Your task to perform on an android device: turn off sleep mode Image 0: 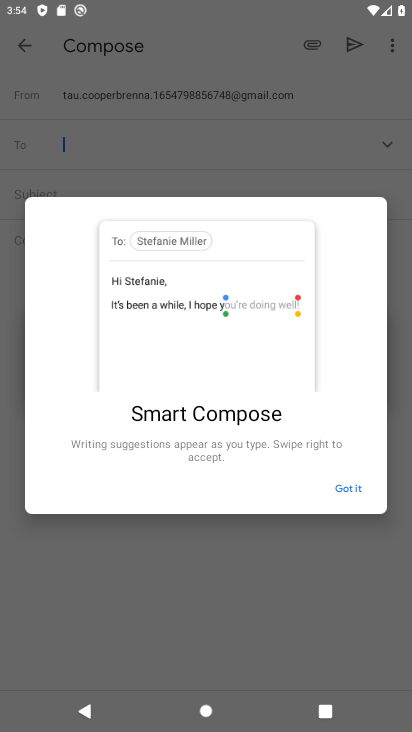
Step 0: press home button
Your task to perform on an android device: turn off sleep mode Image 1: 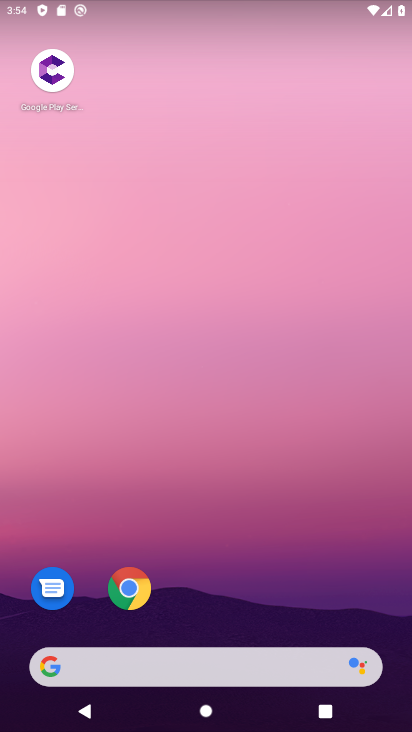
Step 1: drag from (295, 561) to (257, 3)
Your task to perform on an android device: turn off sleep mode Image 2: 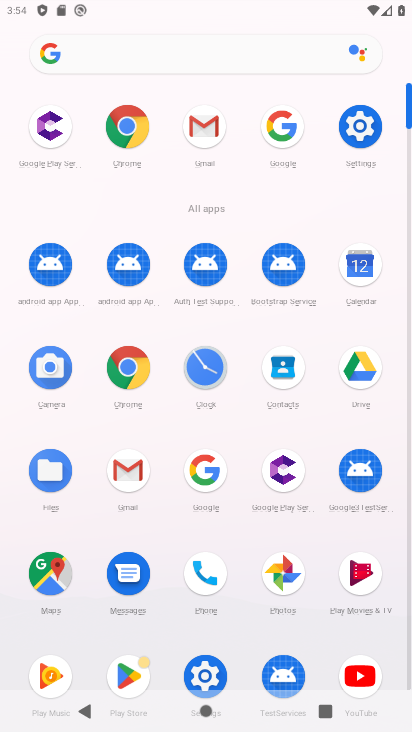
Step 2: click (341, 131)
Your task to perform on an android device: turn off sleep mode Image 3: 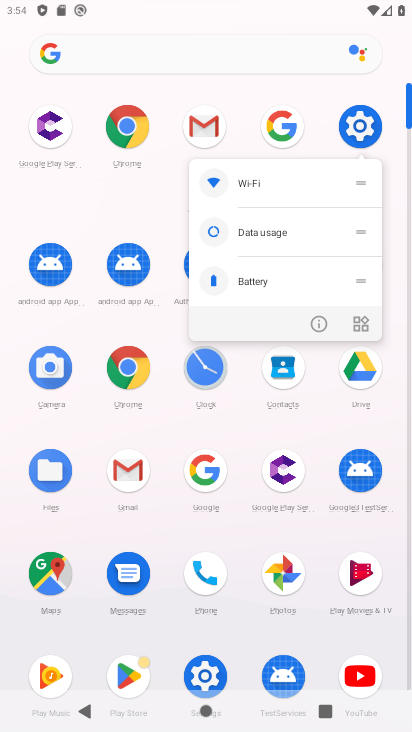
Step 3: click (341, 131)
Your task to perform on an android device: turn off sleep mode Image 4: 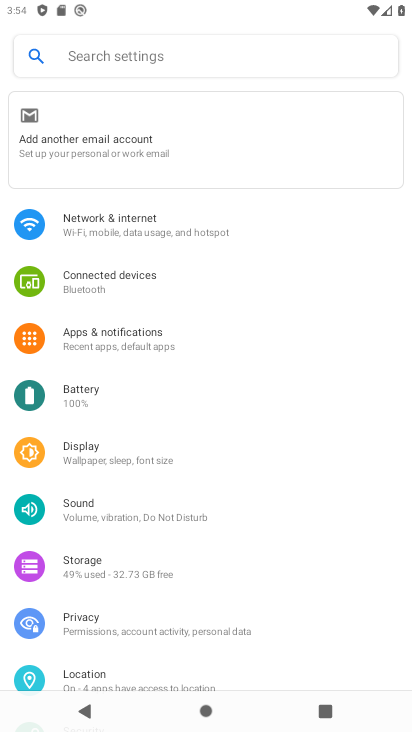
Step 4: click (128, 455)
Your task to perform on an android device: turn off sleep mode Image 5: 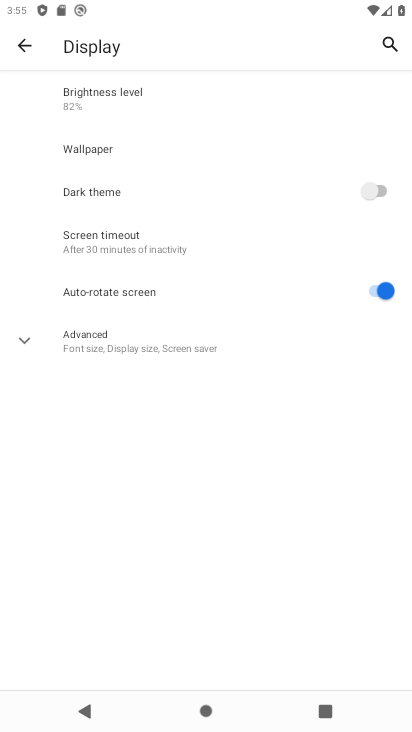
Step 5: click (123, 235)
Your task to perform on an android device: turn off sleep mode Image 6: 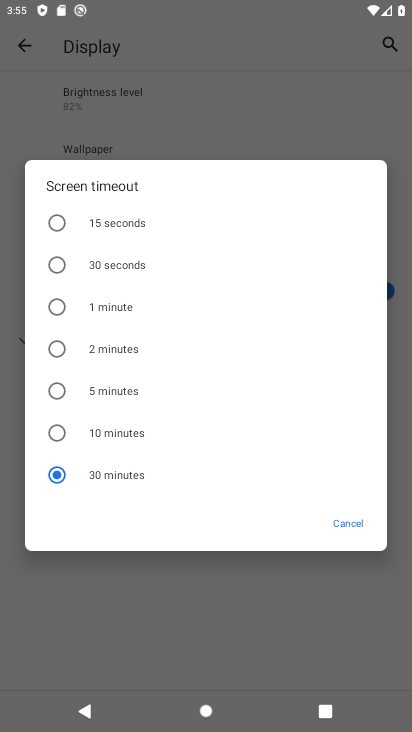
Step 6: task complete